Your task to perform on an android device: find which apps use the phone's location Image 0: 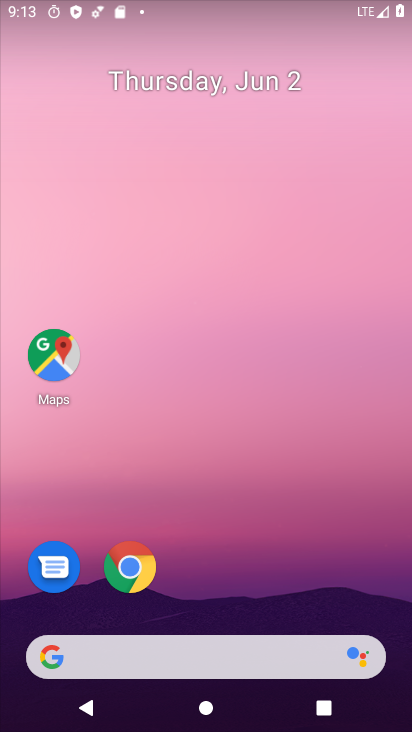
Step 0: drag from (380, 569) to (340, 135)
Your task to perform on an android device: find which apps use the phone's location Image 1: 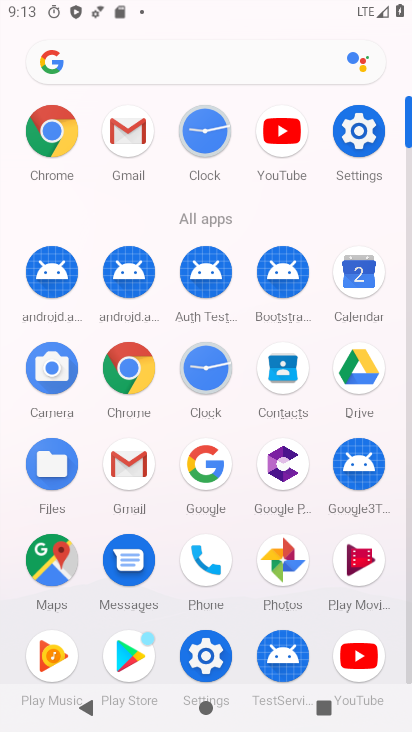
Step 1: click (180, 559)
Your task to perform on an android device: find which apps use the phone's location Image 2: 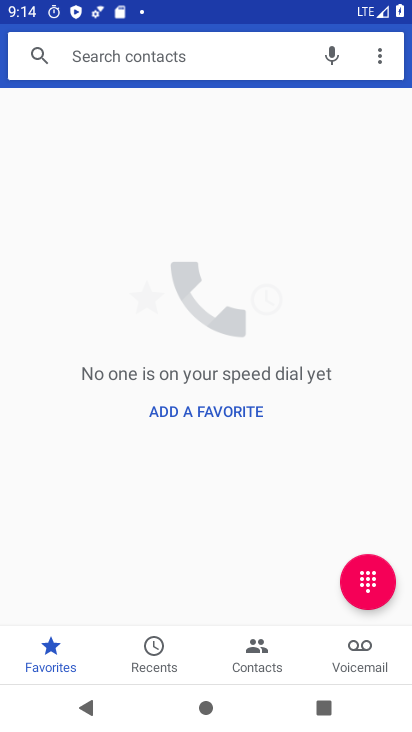
Step 2: task complete